Your task to perform on an android device: Go to eBay Image 0: 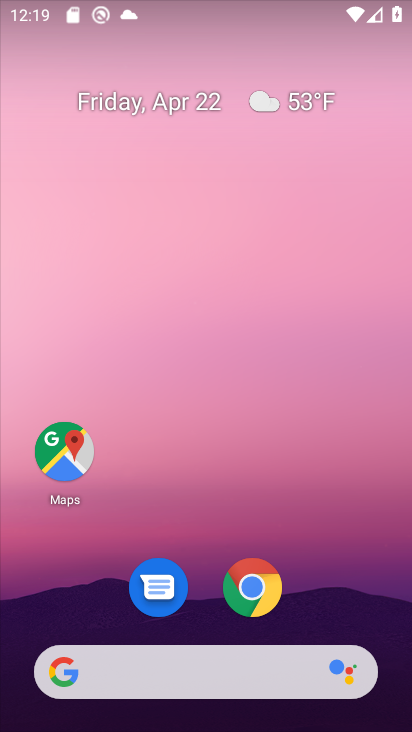
Step 0: click (257, 579)
Your task to perform on an android device: Go to eBay Image 1: 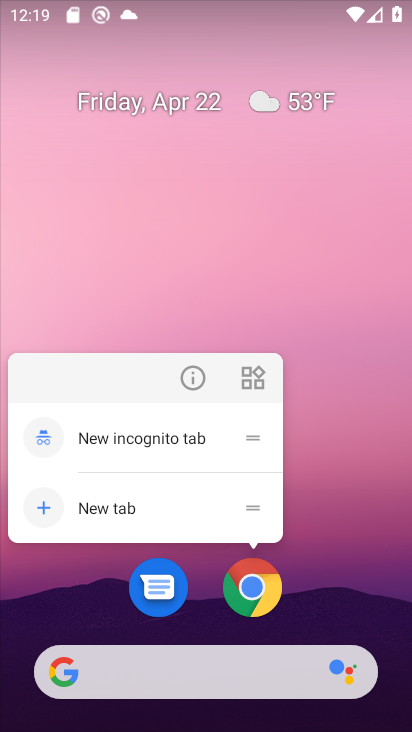
Step 1: click (254, 607)
Your task to perform on an android device: Go to eBay Image 2: 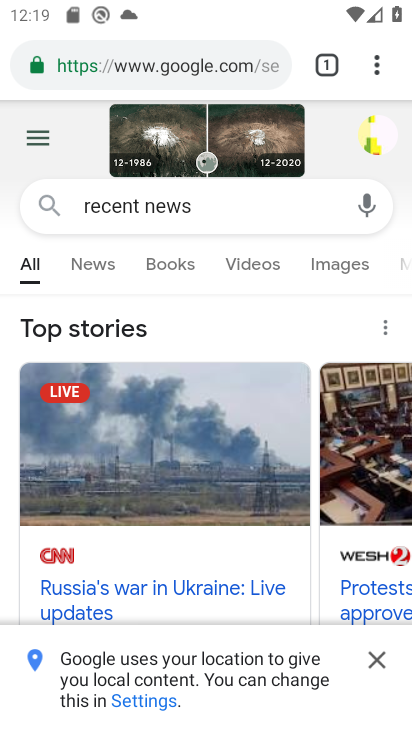
Step 2: click (163, 67)
Your task to perform on an android device: Go to eBay Image 3: 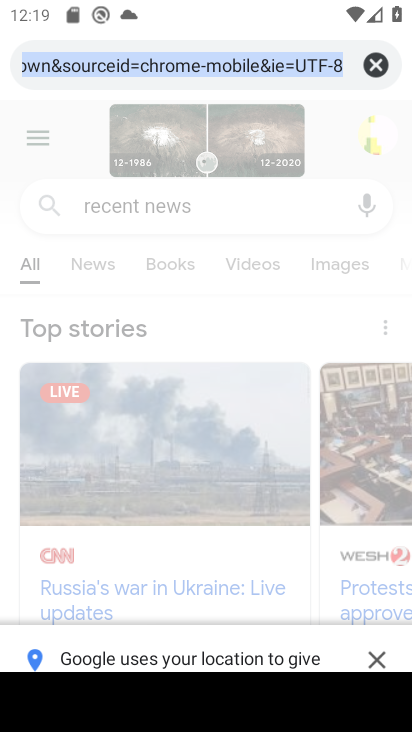
Step 3: type "ebay"
Your task to perform on an android device: Go to eBay Image 4: 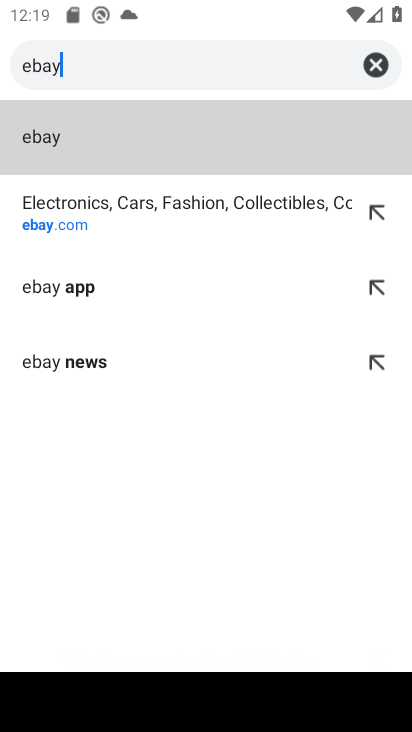
Step 4: click (32, 227)
Your task to perform on an android device: Go to eBay Image 5: 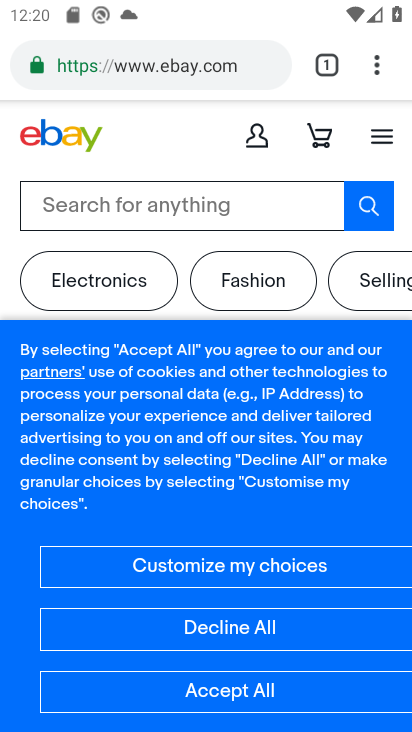
Step 5: task complete